Your task to perform on an android device: Is it going to rain tomorrow? Image 0: 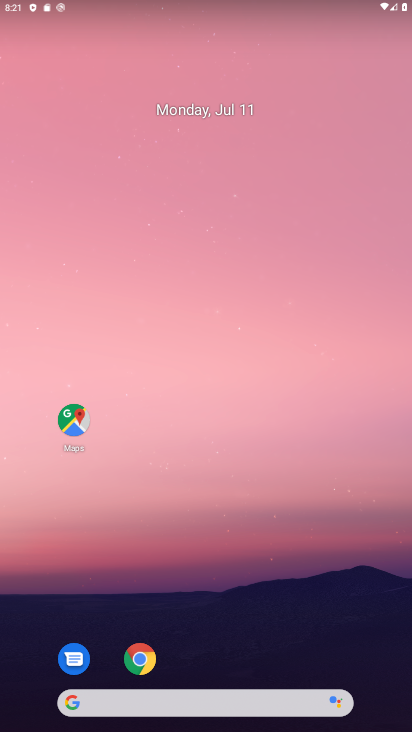
Step 0: drag from (208, 656) to (196, 285)
Your task to perform on an android device: Is it going to rain tomorrow? Image 1: 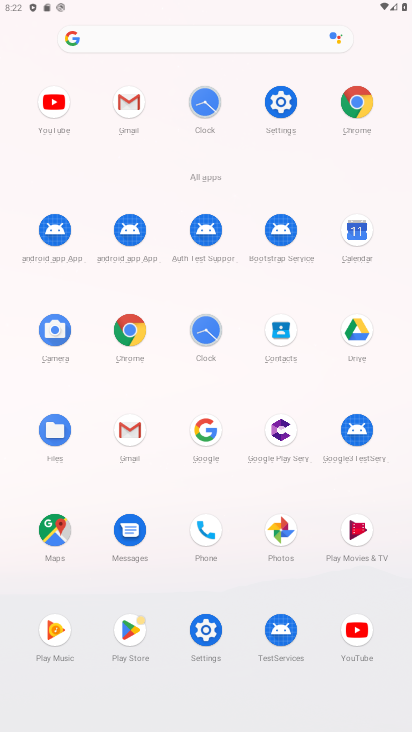
Step 1: click (195, 439)
Your task to perform on an android device: Is it going to rain tomorrow? Image 2: 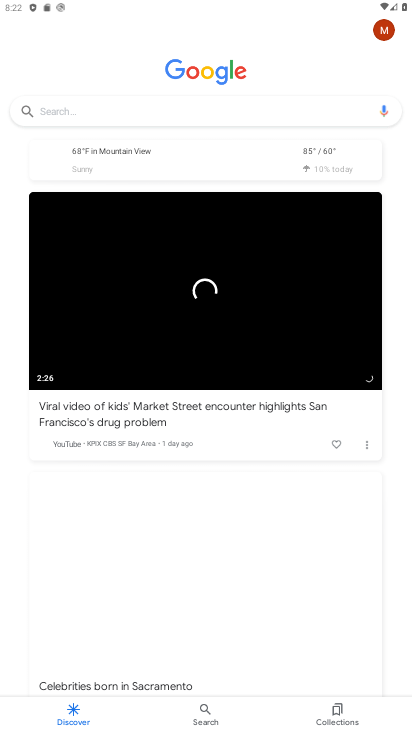
Step 2: click (198, 107)
Your task to perform on an android device: Is it going to rain tomorrow? Image 3: 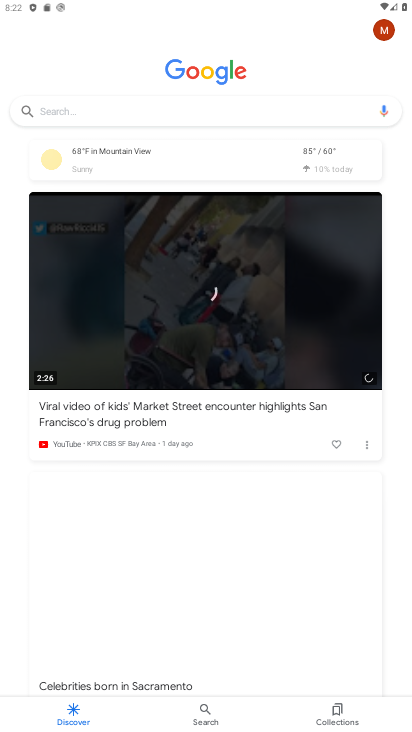
Step 3: click (129, 152)
Your task to perform on an android device: Is it going to rain tomorrow? Image 4: 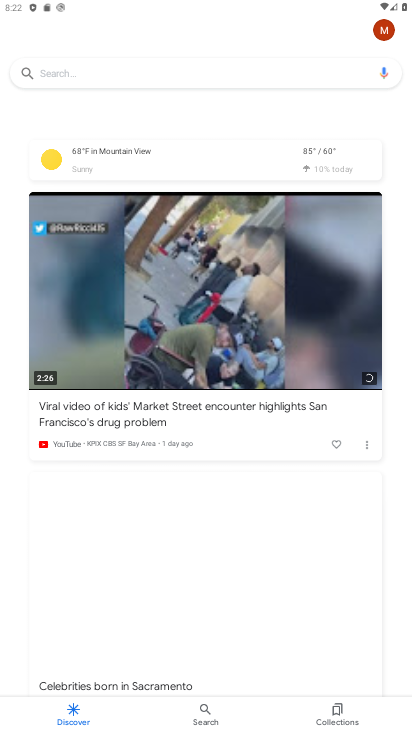
Step 4: click (129, 152)
Your task to perform on an android device: Is it going to rain tomorrow? Image 5: 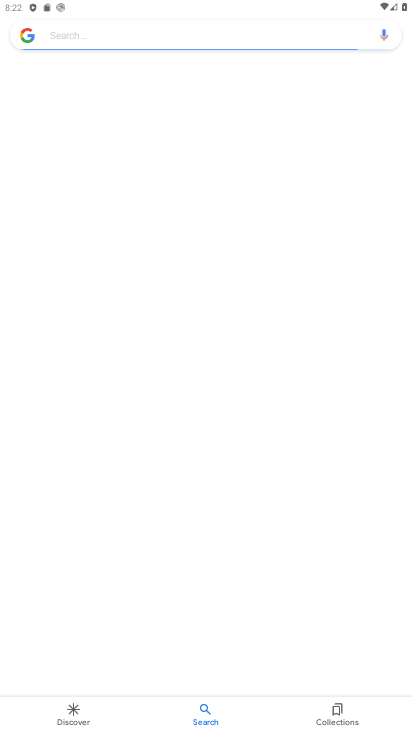
Step 5: task complete